Your task to perform on an android device: turn pop-ups off in chrome Image 0: 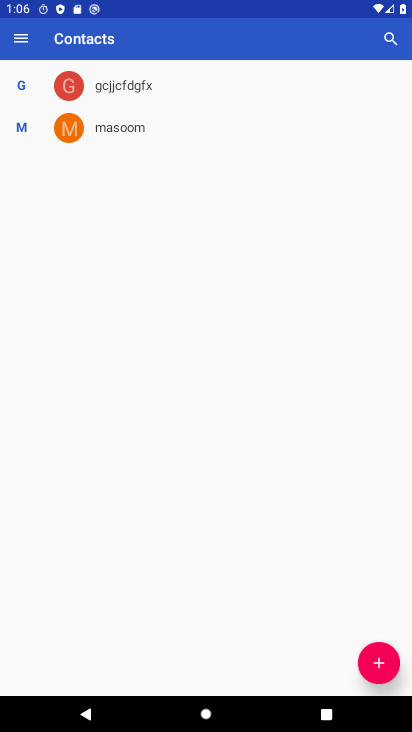
Step 0: press home button
Your task to perform on an android device: turn pop-ups off in chrome Image 1: 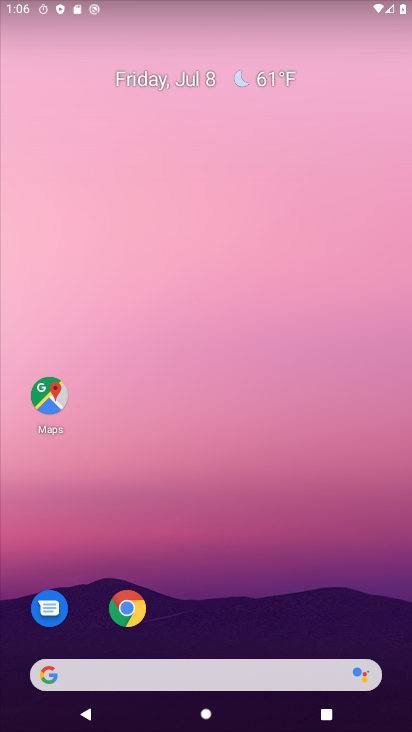
Step 1: click (128, 604)
Your task to perform on an android device: turn pop-ups off in chrome Image 2: 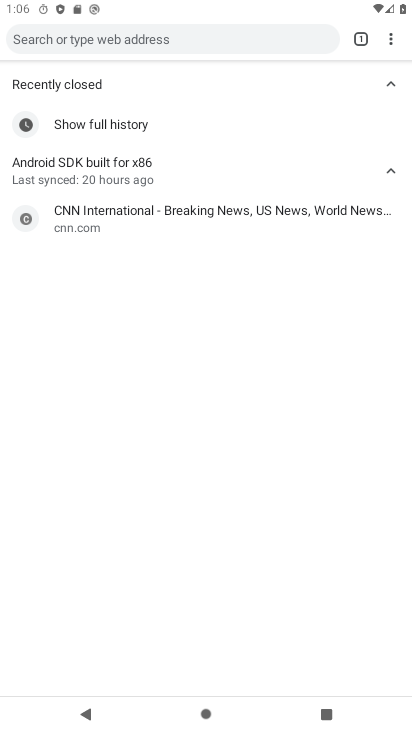
Step 2: click (386, 36)
Your task to perform on an android device: turn pop-ups off in chrome Image 3: 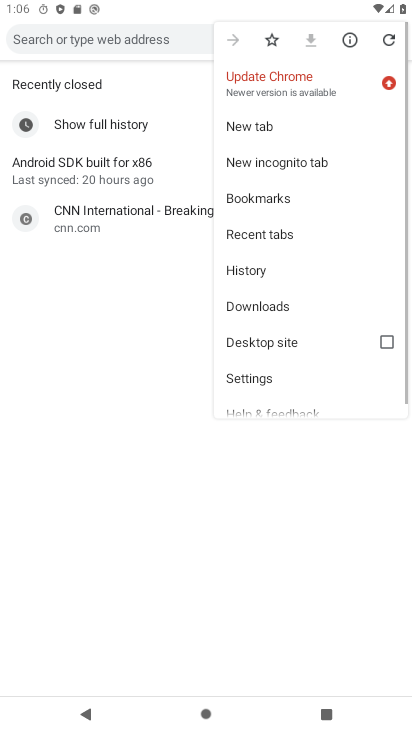
Step 3: click (259, 382)
Your task to perform on an android device: turn pop-ups off in chrome Image 4: 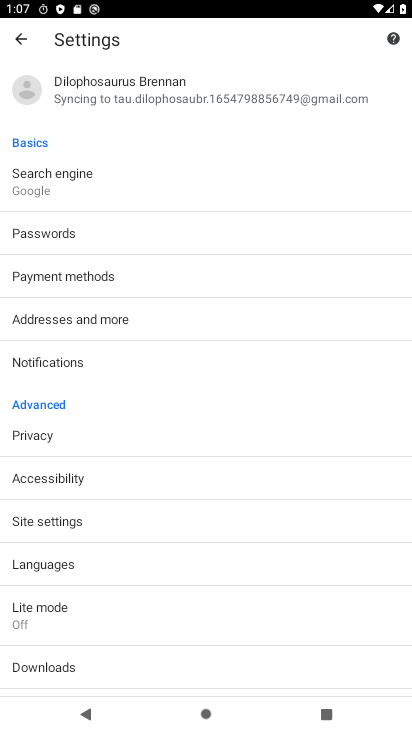
Step 4: drag from (126, 555) to (152, 288)
Your task to perform on an android device: turn pop-ups off in chrome Image 5: 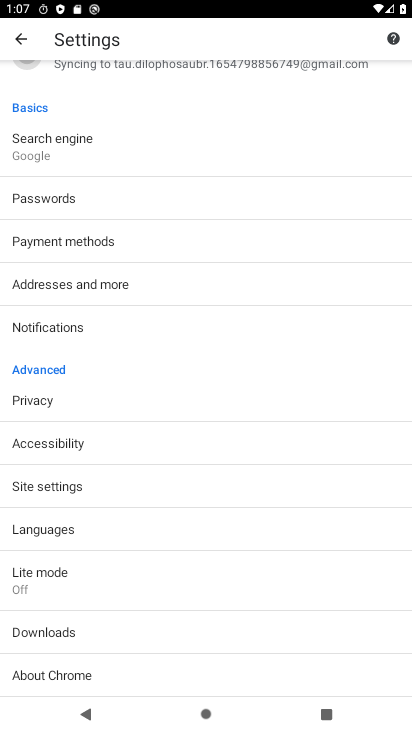
Step 5: click (71, 493)
Your task to perform on an android device: turn pop-ups off in chrome Image 6: 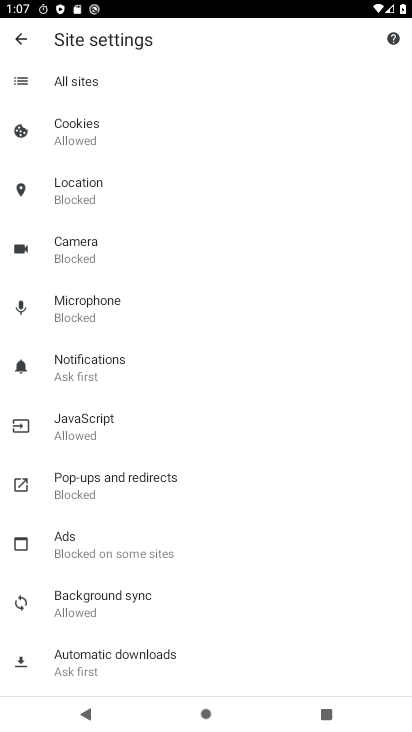
Step 6: click (111, 473)
Your task to perform on an android device: turn pop-ups off in chrome Image 7: 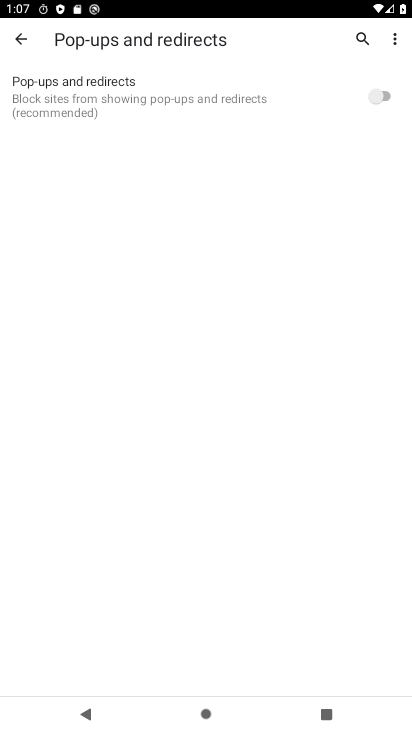
Step 7: task complete